Your task to perform on an android device: Search for vegetarian restaurants on Maps Image 0: 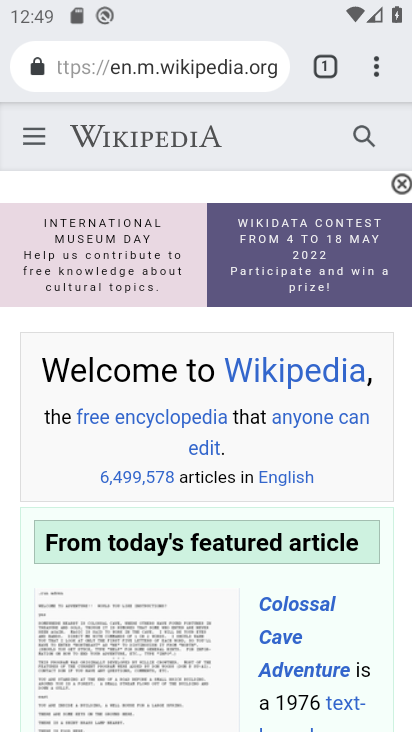
Step 0: press home button
Your task to perform on an android device: Search for vegetarian restaurants on Maps Image 1: 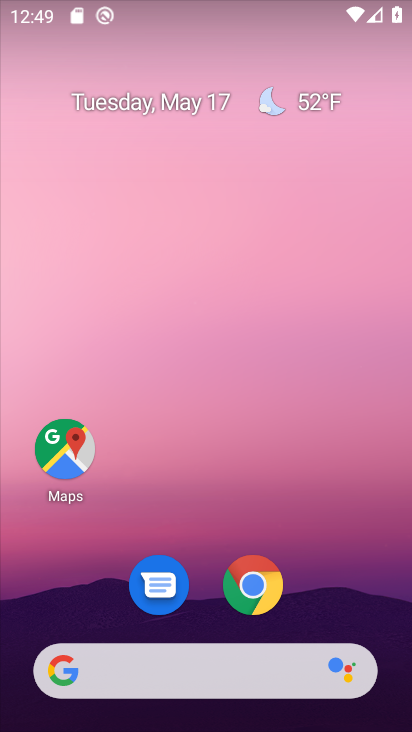
Step 1: click (58, 457)
Your task to perform on an android device: Search for vegetarian restaurants on Maps Image 2: 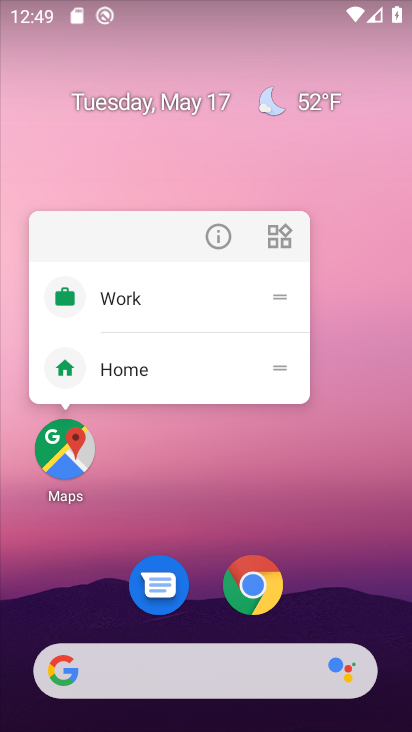
Step 2: click (56, 456)
Your task to perform on an android device: Search for vegetarian restaurants on Maps Image 3: 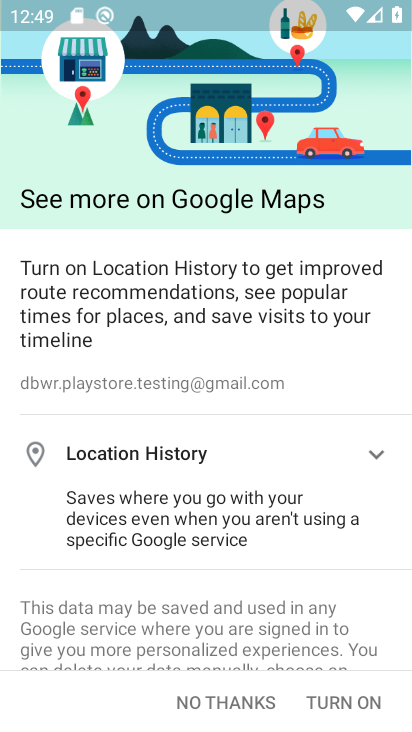
Step 3: click (323, 699)
Your task to perform on an android device: Search for vegetarian restaurants on Maps Image 4: 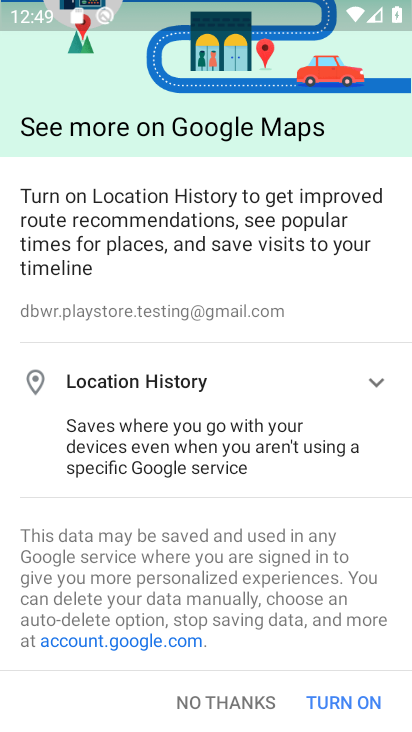
Step 4: click (323, 698)
Your task to perform on an android device: Search for vegetarian restaurants on Maps Image 5: 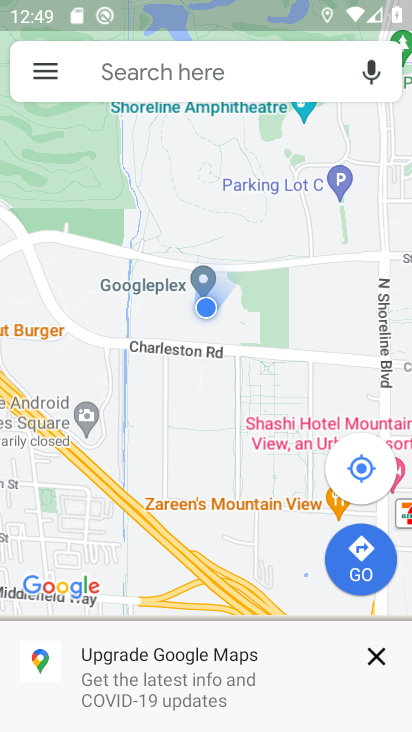
Step 5: click (209, 72)
Your task to perform on an android device: Search for vegetarian restaurants on Maps Image 6: 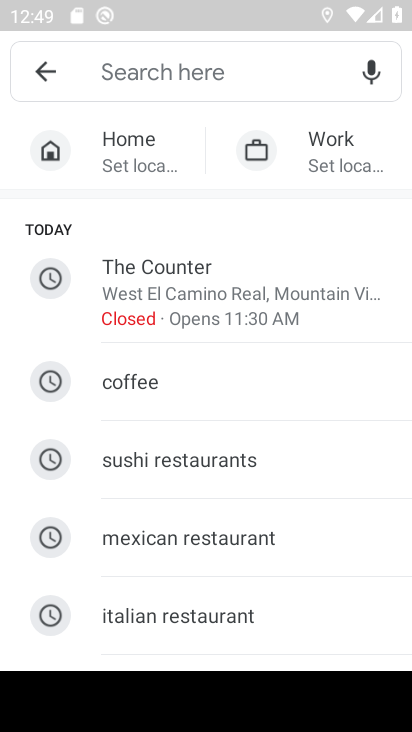
Step 6: drag from (231, 543) to (243, 201)
Your task to perform on an android device: Search for vegetarian restaurants on Maps Image 7: 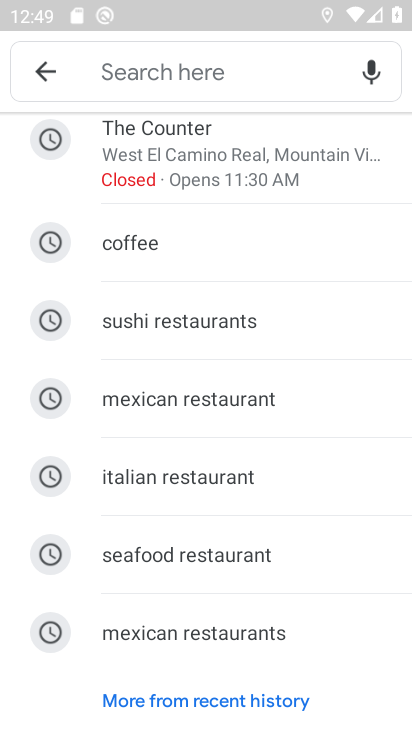
Step 7: click (282, 69)
Your task to perform on an android device: Search for vegetarian restaurants on Maps Image 8: 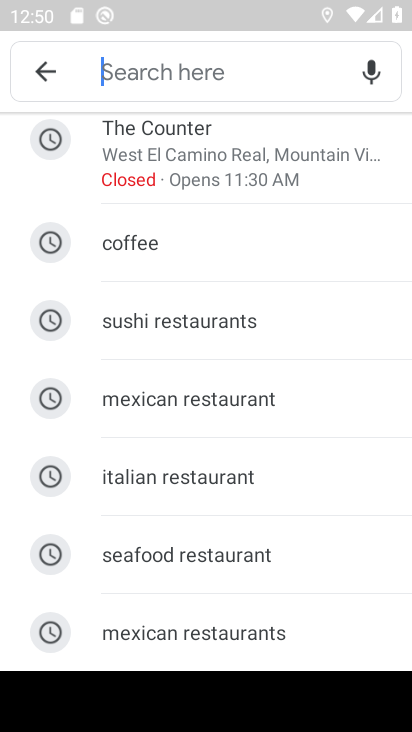
Step 8: drag from (283, 253) to (272, 517)
Your task to perform on an android device: Search for vegetarian restaurants on Maps Image 9: 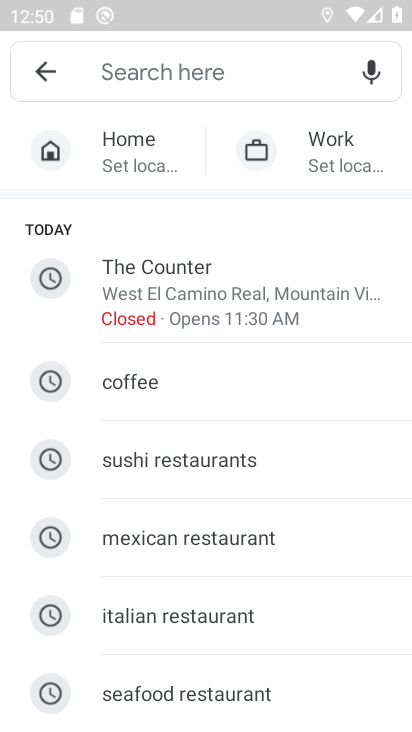
Step 9: click (239, 71)
Your task to perform on an android device: Search for vegetarian restaurants on Maps Image 10: 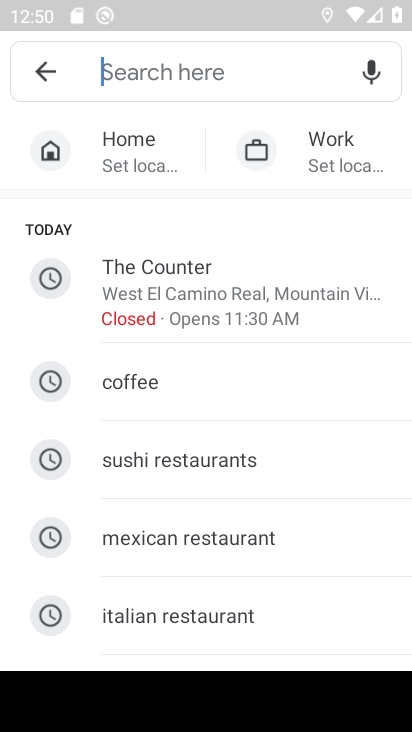
Step 10: type "vegetarian restaurants"
Your task to perform on an android device: Search for vegetarian restaurants on Maps Image 11: 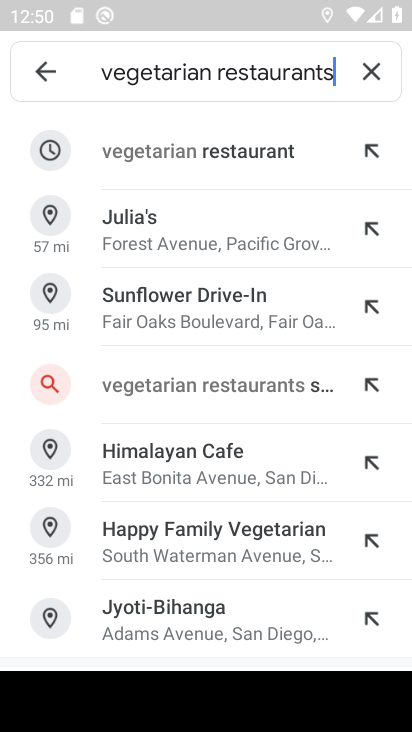
Step 11: click (255, 138)
Your task to perform on an android device: Search for vegetarian restaurants on Maps Image 12: 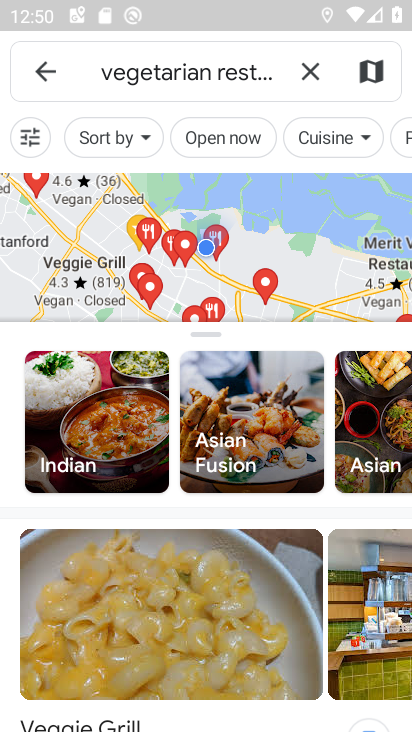
Step 12: task complete